Your task to perform on an android device: Go to Amazon Image 0: 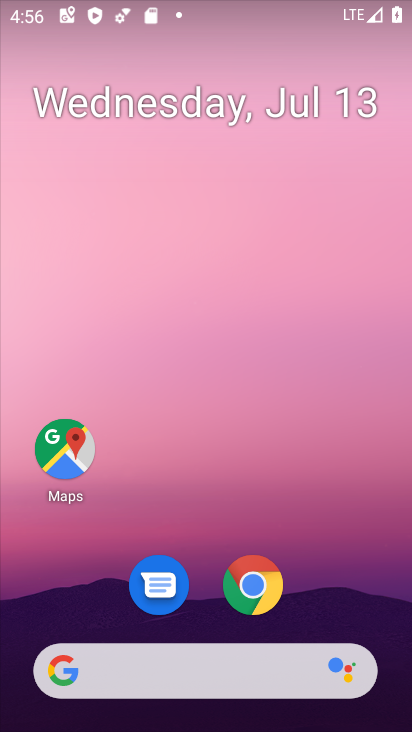
Step 0: click (251, 585)
Your task to perform on an android device: Go to Amazon Image 1: 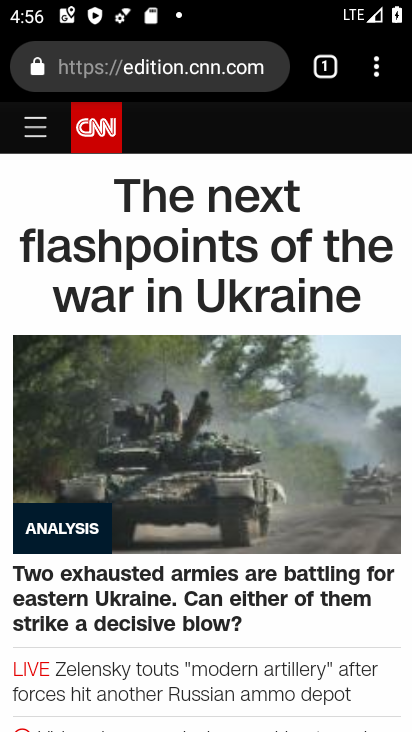
Step 1: click (382, 74)
Your task to perform on an android device: Go to Amazon Image 2: 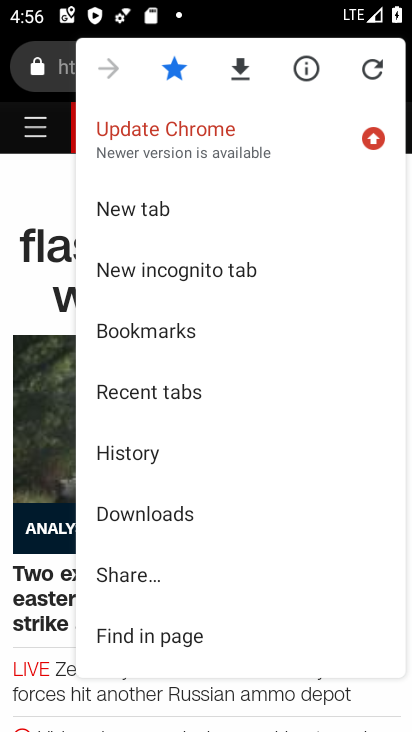
Step 2: click (189, 207)
Your task to perform on an android device: Go to Amazon Image 3: 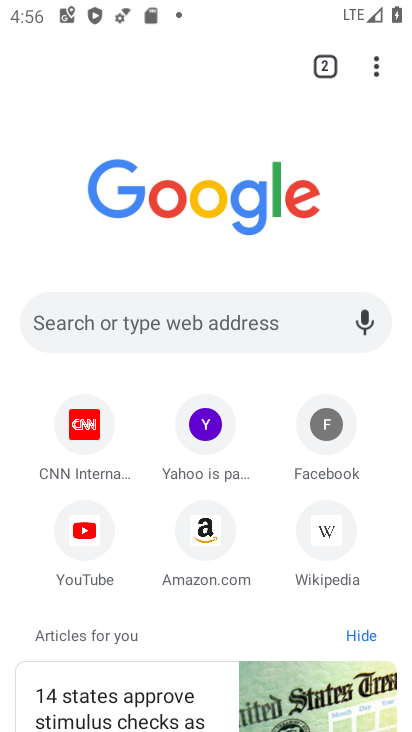
Step 3: click (206, 522)
Your task to perform on an android device: Go to Amazon Image 4: 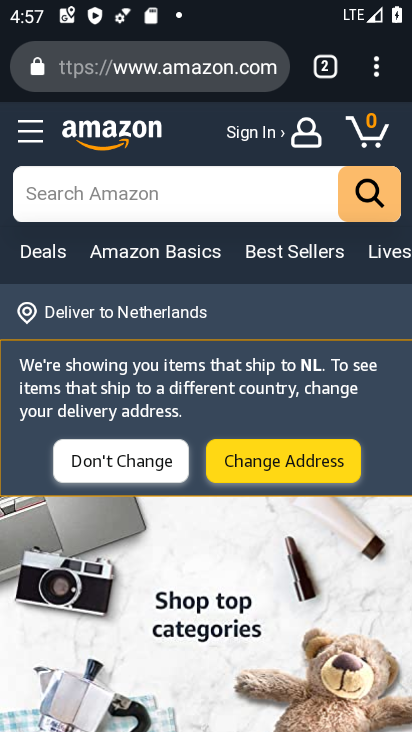
Step 4: task complete